Your task to perform on an android device: What's the weather going to be tomorrow? Image 0: 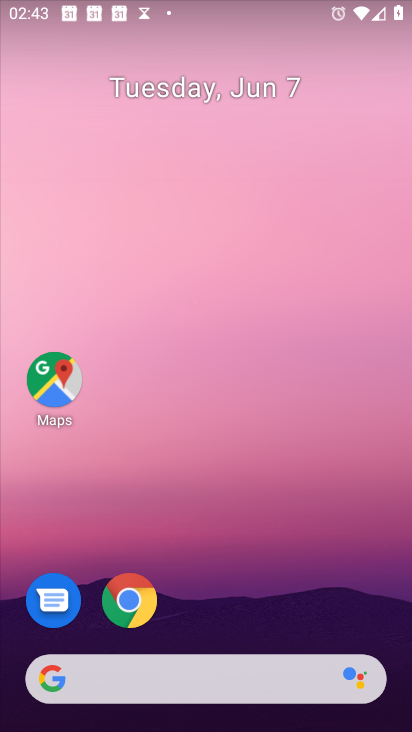
Step 0: drag from (231, 725) to (236, 262)
Your task to perform on an android device: What's the weather going to be tomorrow? Image 1: 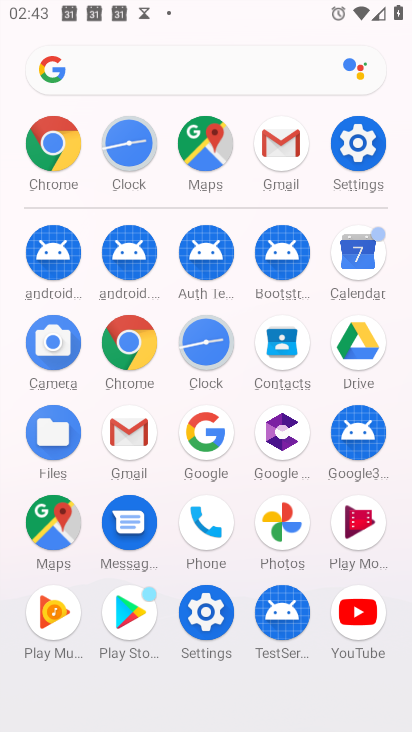
Step 1: click (208, 426)
Your task to perform on an android device: What's the weather going to be tomorrow? Image 2: 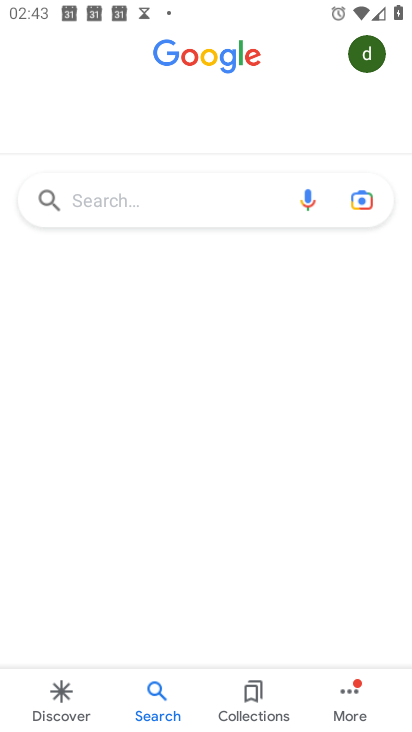
Step 2: click (199, 200)
Your task to perform on an android device: What's the weather going to be tomorrow? Image 3: 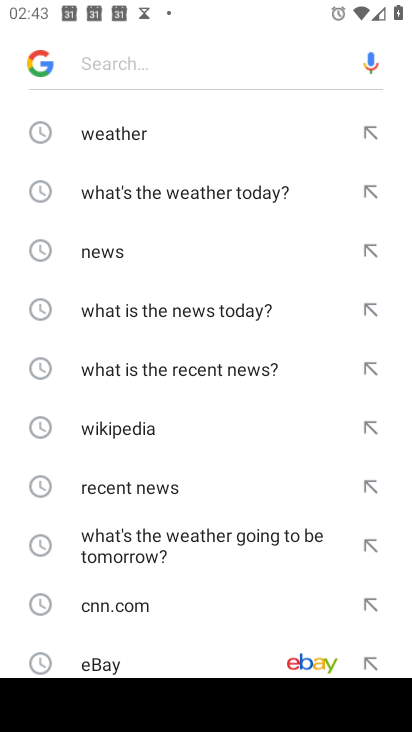
Step 3: click (115, 131)
Your task to perform on an android device: What's the weather going to be tomorrow? Image 4: 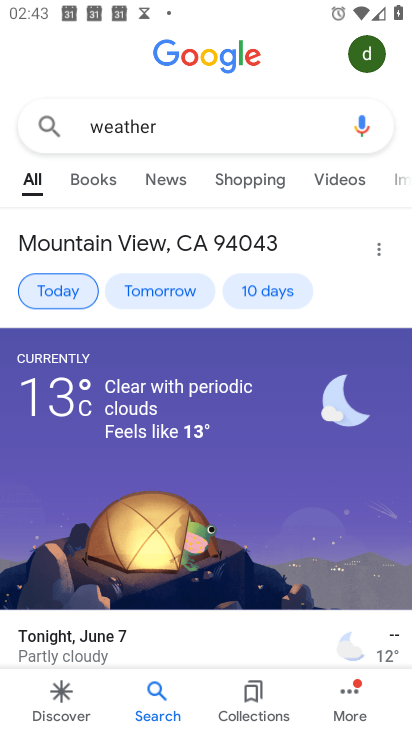
Step 4: click (178, 287)
Your task to perform on an android device: What's the weather going to be tomorrow? Image 5: 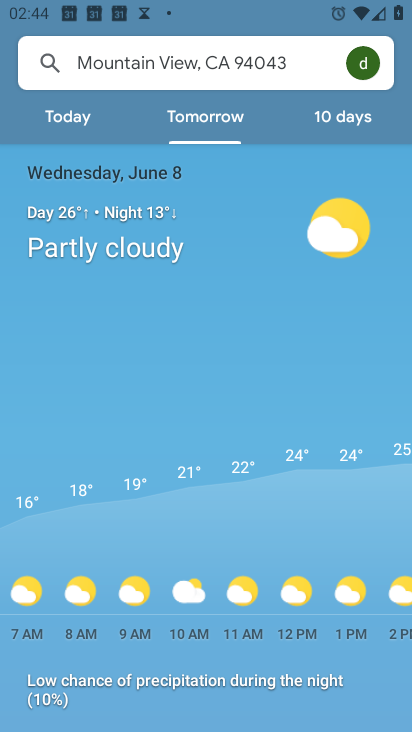
Step 5: task complete